Your task to perform on an android device: Open Google Chrome and open the bookmarks view Image 0: 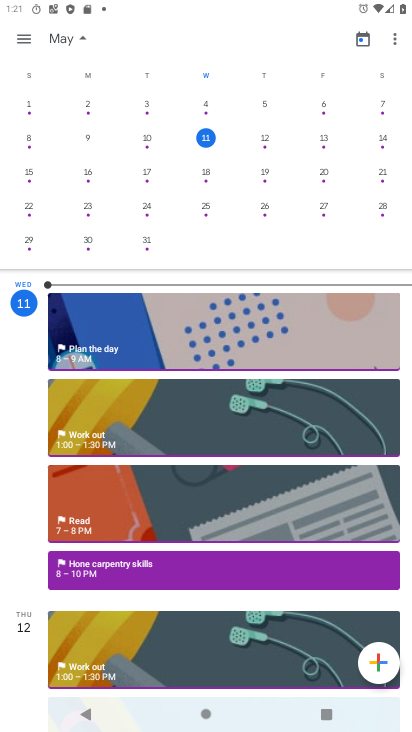
Step 0: press home button
Your task to perform on an android device: Open Google Chrome and open the bookmarks view Image 1: 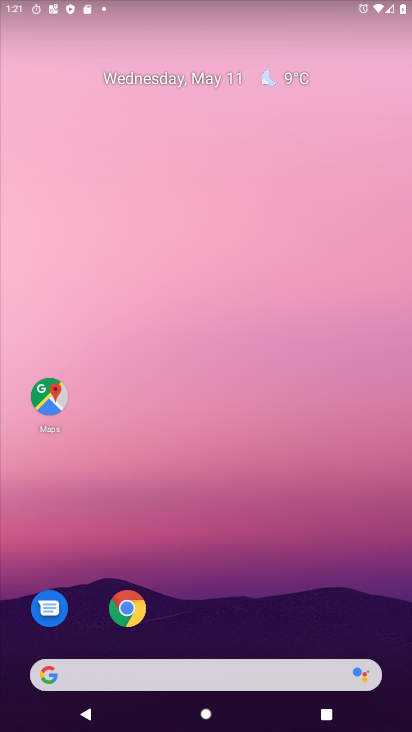
Step 1: drag from (288, 615) to (270, 246)
Your task to perform on an android device: Open Google Chrome and open the bookmarks view Image 2: 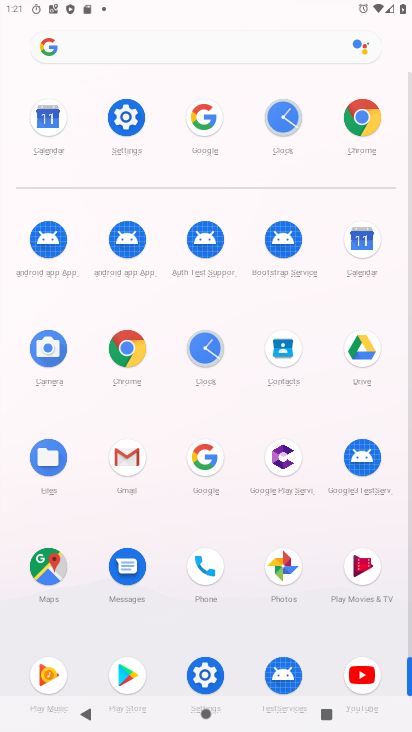
Step 2: click (128, 363)
Your task to perform on an android device: Open Google Chrome and open the bookmarks view Image 3: 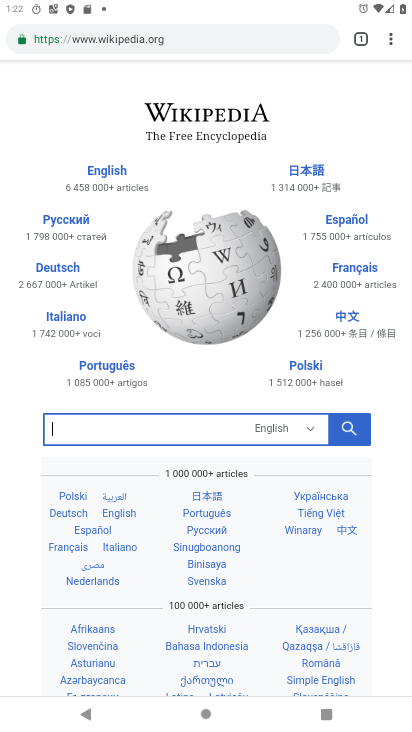
Step 3: click (391, 42)
Your task to perform on an android device: Open Google Chrome and open the bookmarks view Image 4: 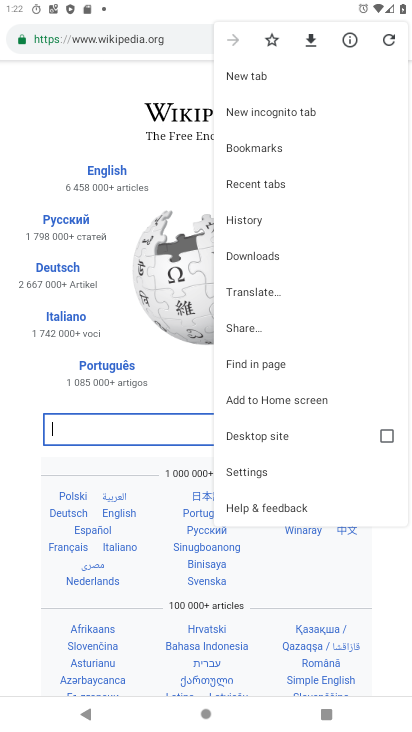
Step 4: click (286, 146)
Your task to perform on an android device: Open Google Chrome and open the bookmarks view Image 5: 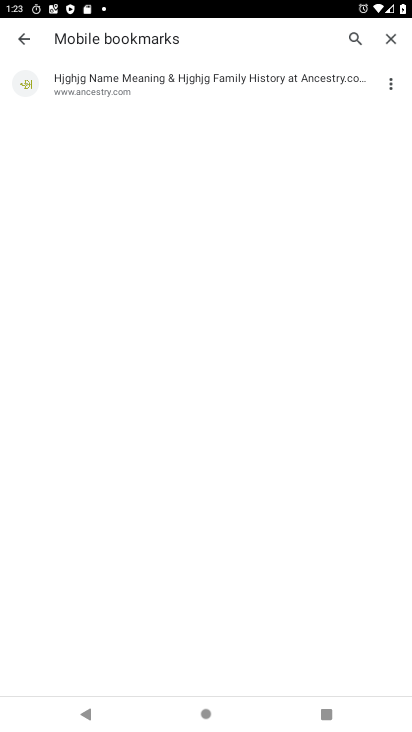
Step 5: task complete